Your task to perform on an android device: Show me recent news Image 0: 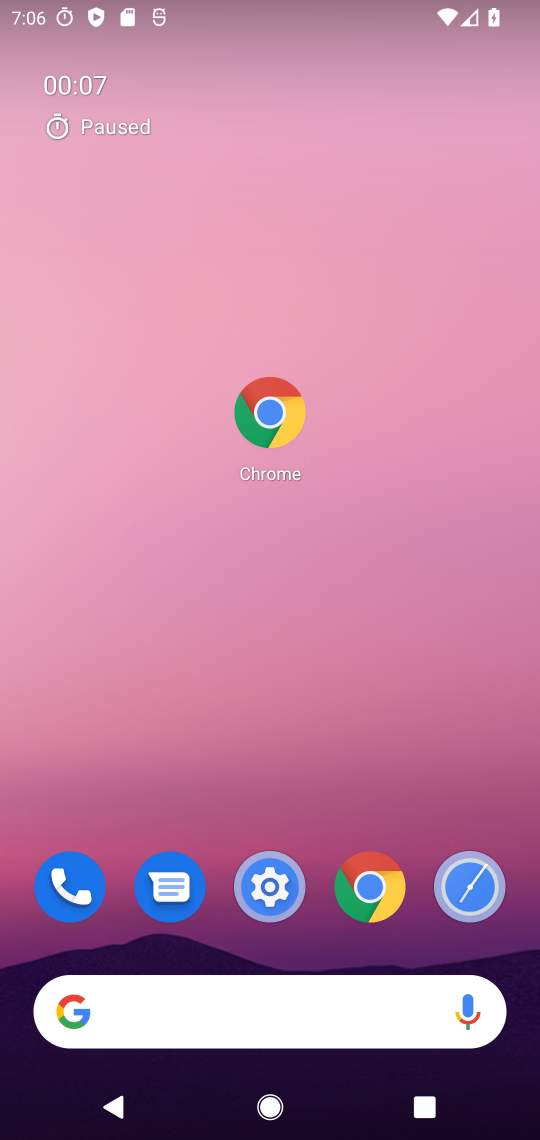
Step 0: drag from (438, 312) to (438, 258)
Your task to perform on an android device: Show me recent news Image 1: 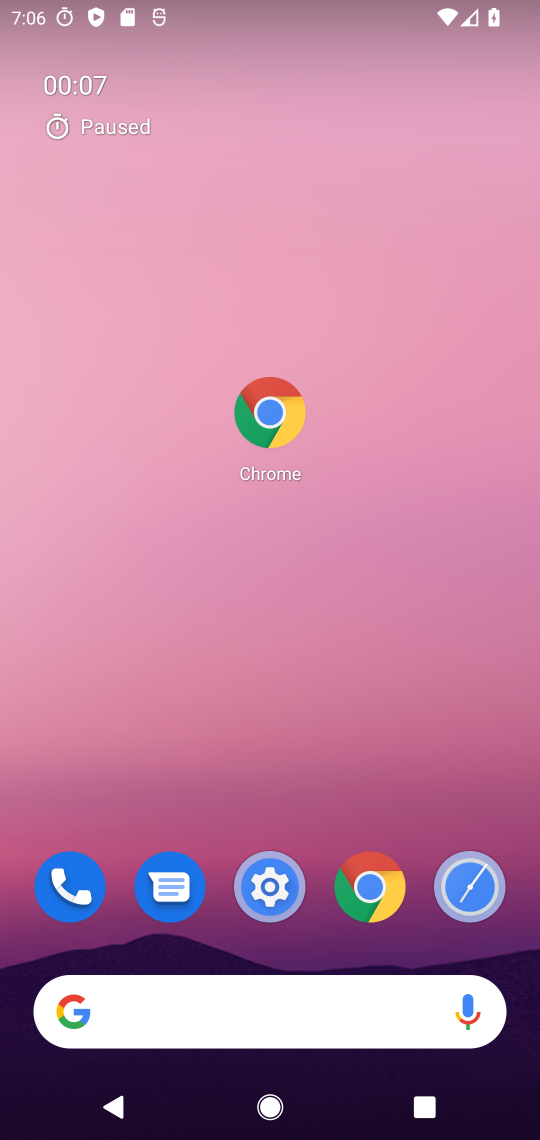
Step 1: drag from (299, 911) to (203, 353)
Your task to perform on an android device: Show me recent news Image 2: 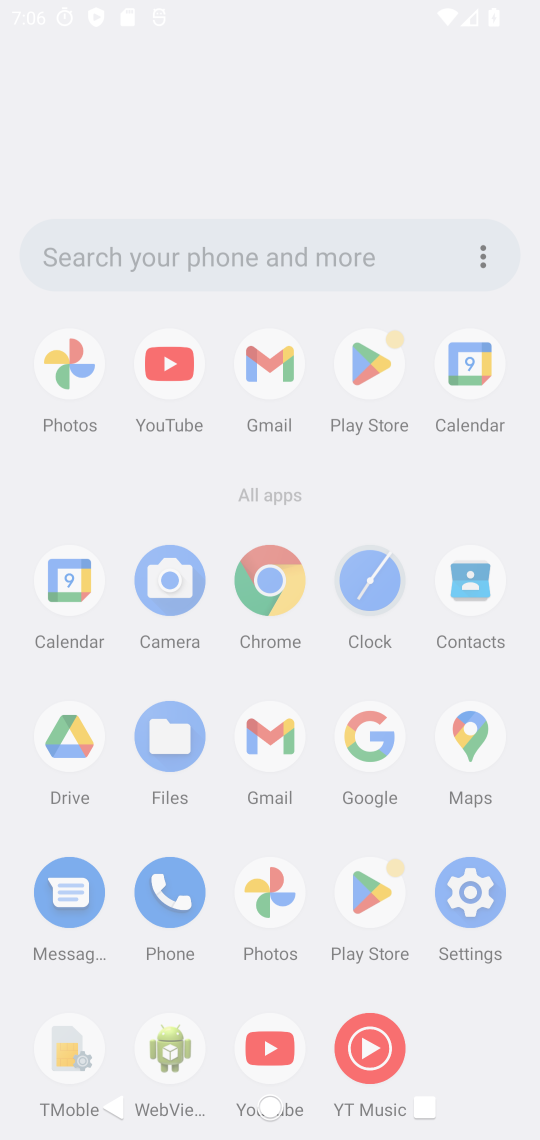
Step 2: drag from (312, 726) to (255, 122)
Your task to perform on an android device: Show me recent news Image 3: 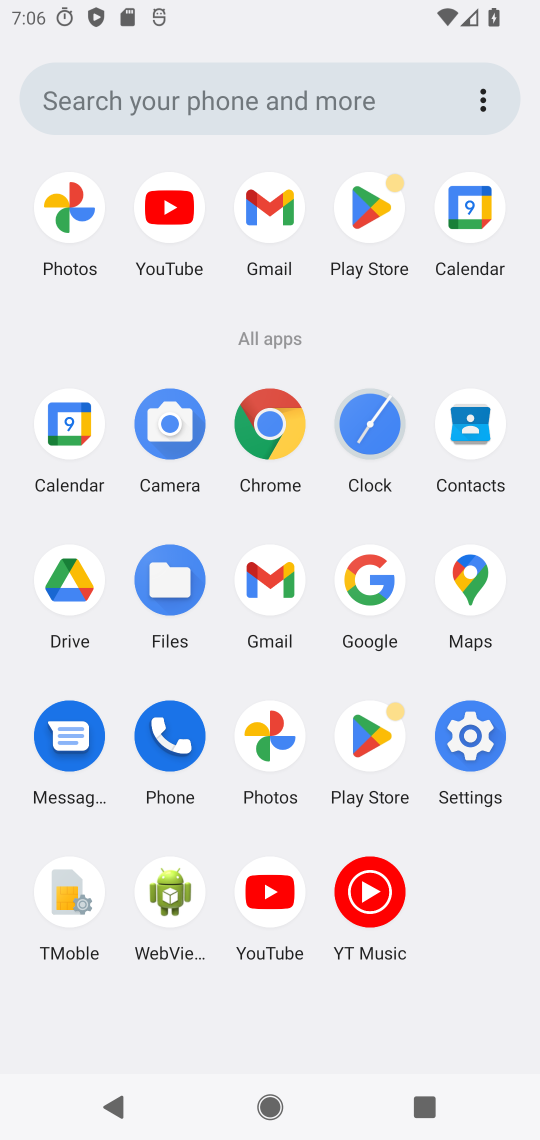
Step 3: drag from (298, 799) to (313, 174)
Your task to perform on an android device: Show me recent news Image 4: 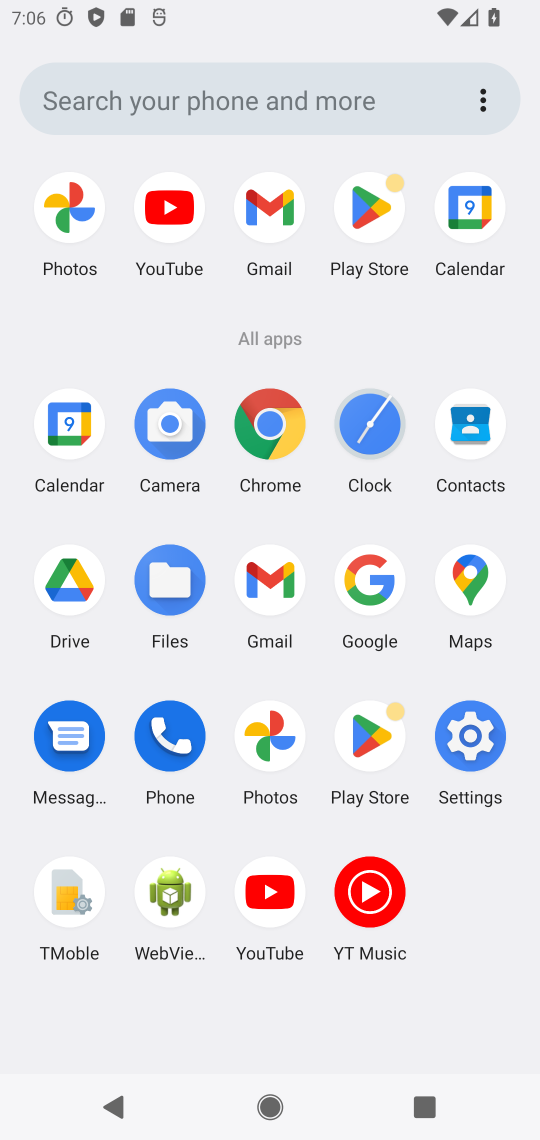
Step 4: click (251, 432)
Your task to perform on an android device: Show me recent news Image 5: 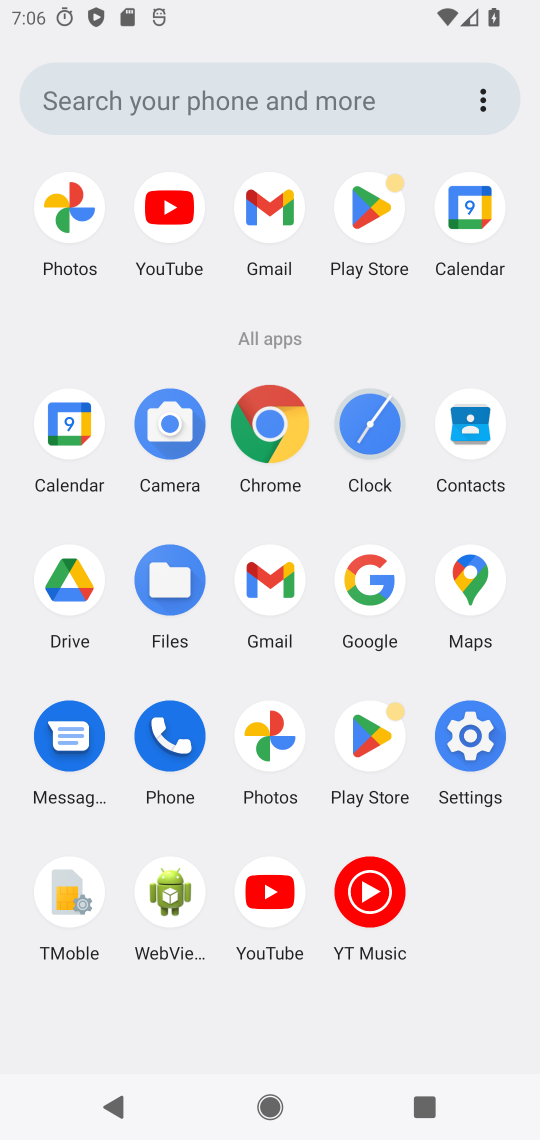
Step 5: click (249, 426)
Your task to perform on an android device: Show me recent news Image 6: 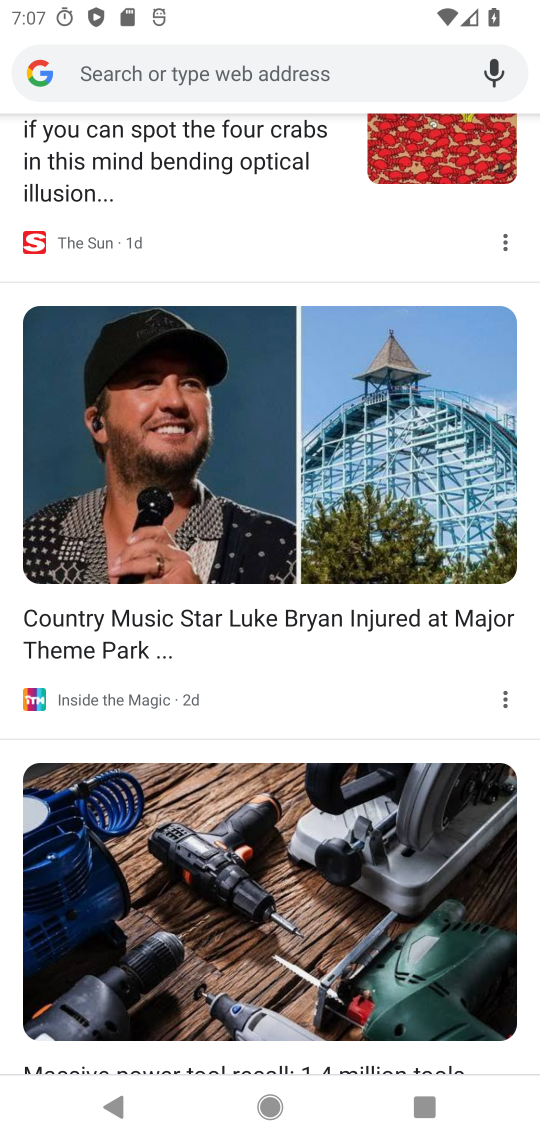
Step 6: task complete